Your task to perform on an android device: clear history in the chrome app Image 0: 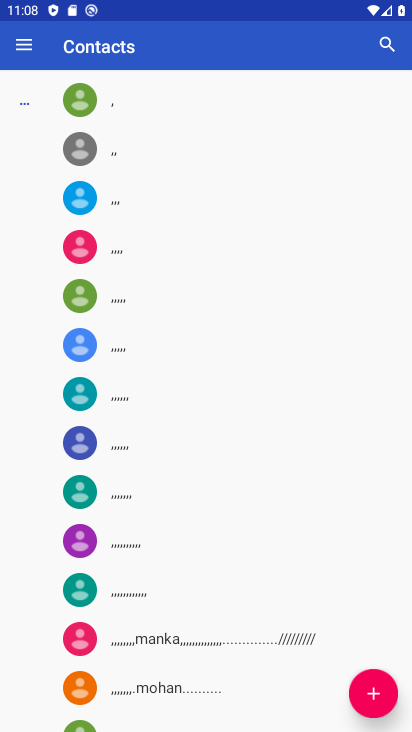
Step 0: press home button
Your task to perform on an android device: clear history in the chrome app Image 1: 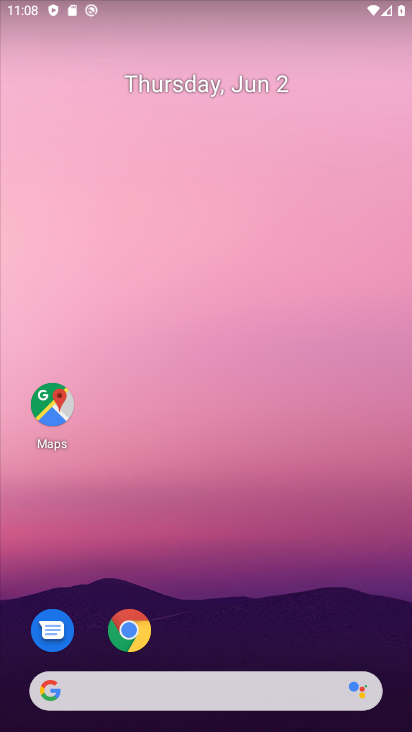
Step 1: drag from (209, 648) to (285, 187)
Your task to perform on an android device: clear history in the chrome app Image 2: 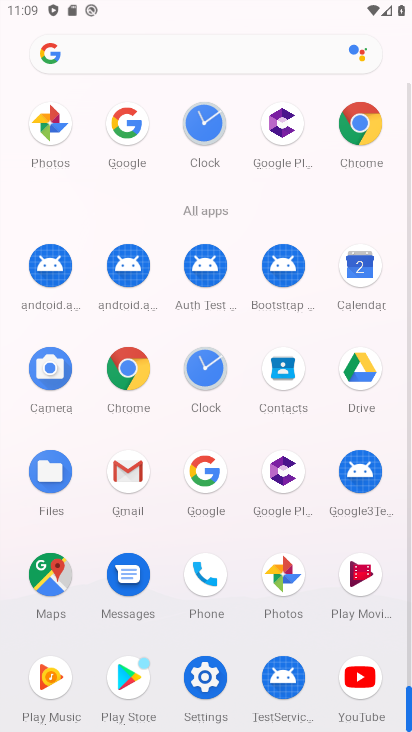
Step 2: click (132, 365)
Your task to perform on an android device: clear history in the chrome app Image 3: 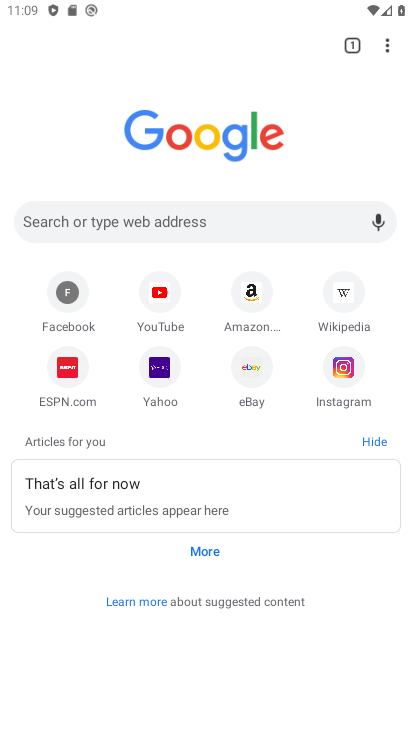
Step 3: drag from (383, 51) to (284, 263)
Your task to perform on an android device: clear history in the chrome app Image 4: 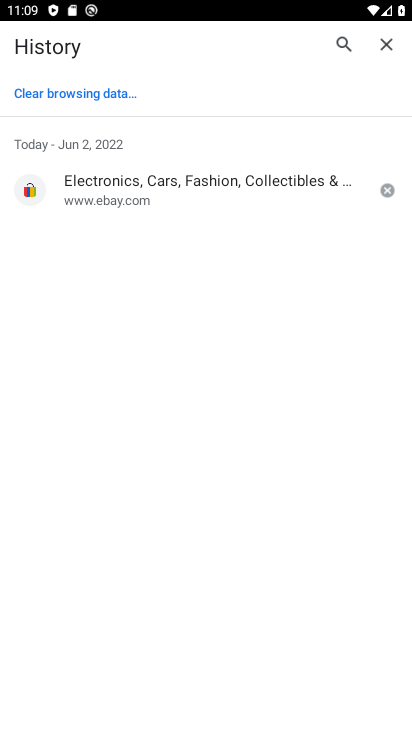
Step 4: click (69, 102)
Your task to perform on an android device: clear history in the chrome app Image 5: 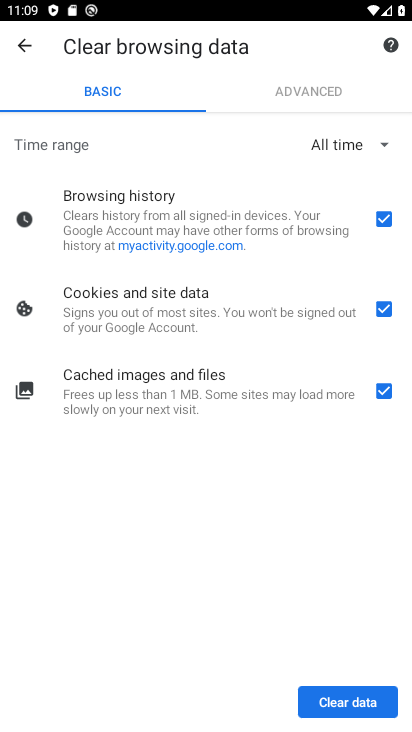
Step 5: click (337, 709)
Your task to perform on an android device: clear history in the chrome app Image 6: 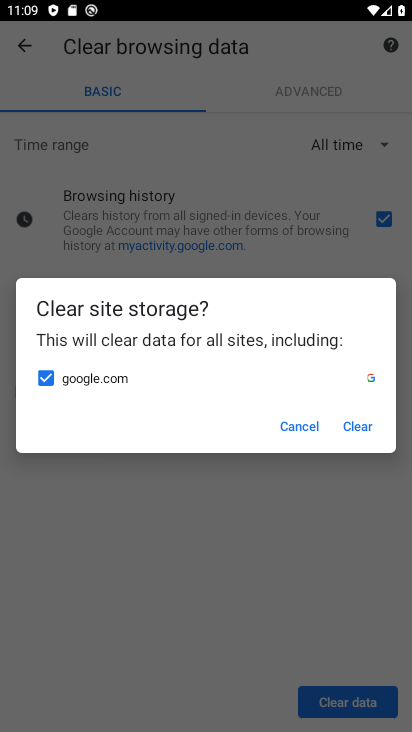
Step 6: click (370, 428)
Your task to perform on an android device: clear history in the chrome app Image 7: 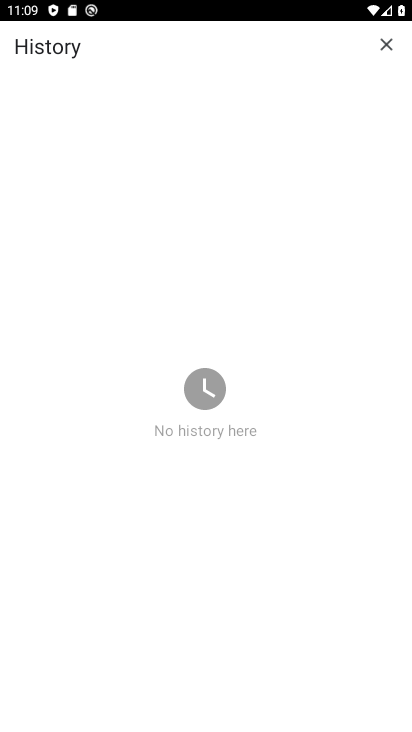
Step 7: task complete